Your task to perform on an android device: Go to battery settings Image 0: 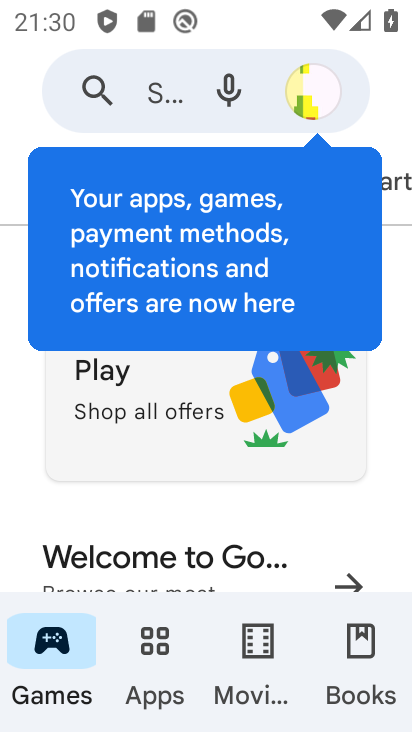
Step 0: press home button
Your task to perform on an android device: Go to battery settings Image 1: 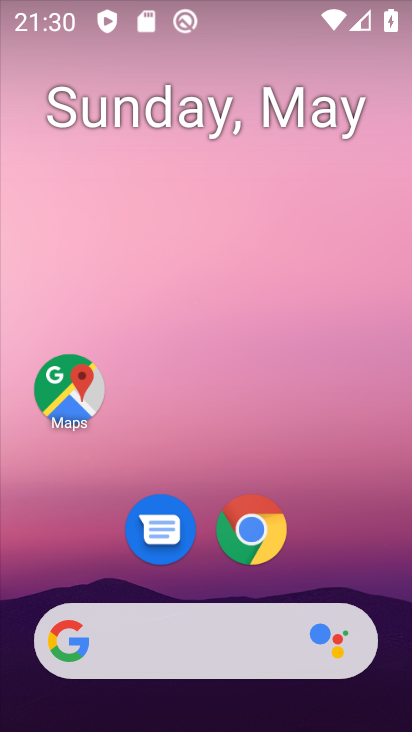
Step 1: drag from (319, 577) to (324, 40)
Your task to perform on an android device: Go to battery settings Image 2: 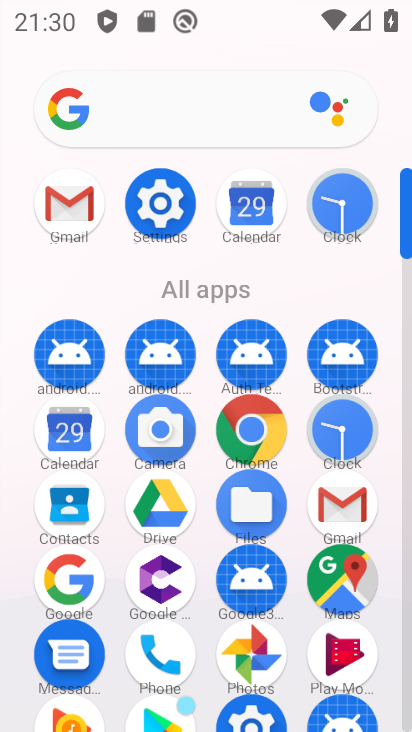
Step 2: click (165, 223)
Your task to perform on an android device: Go to battery settings Image 3: 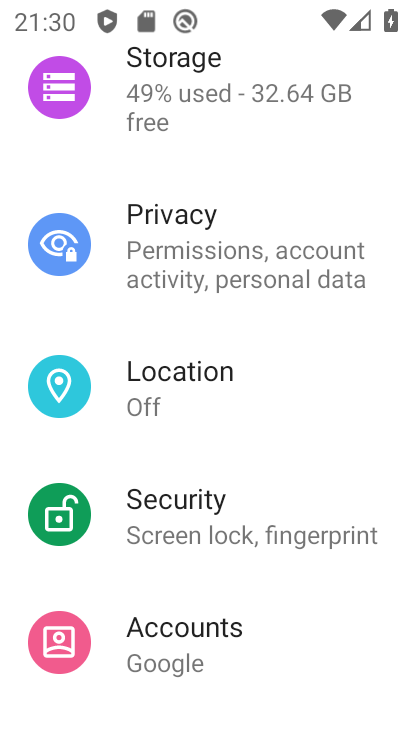
Step 3: drag from (194, 334) to (224, 582)
Your task to perform on an android device: Go to battery settings Image 4: 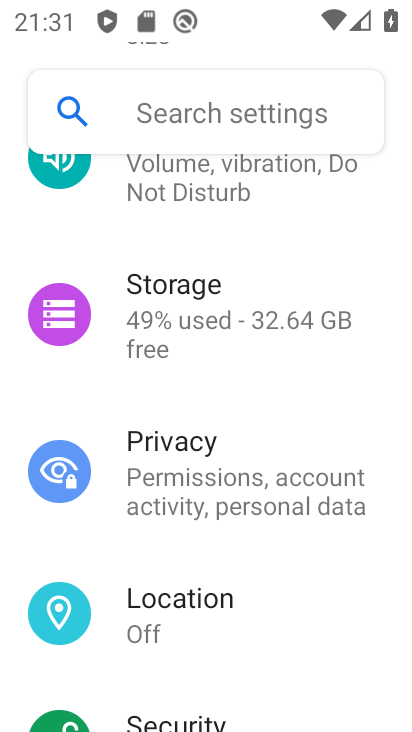
Step 4: drag from (181, 223) to (216, 535)
Your task to perform on an android device: Go to battery settings Image 5: 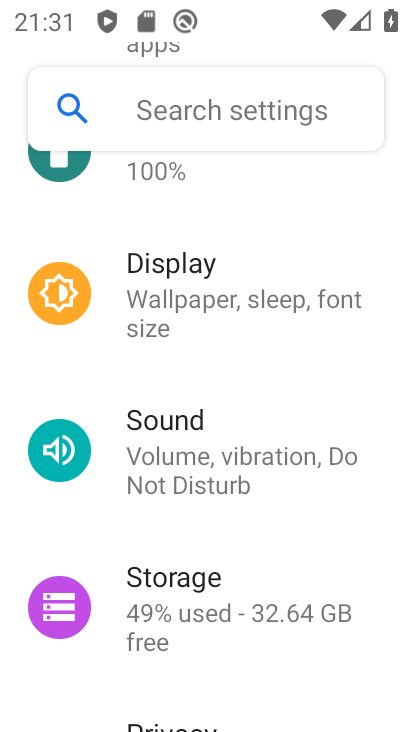
Step 5: drag from (182, 229) to (206, 486)
Your task to perform on an android device: Go to battery settings Image 6: 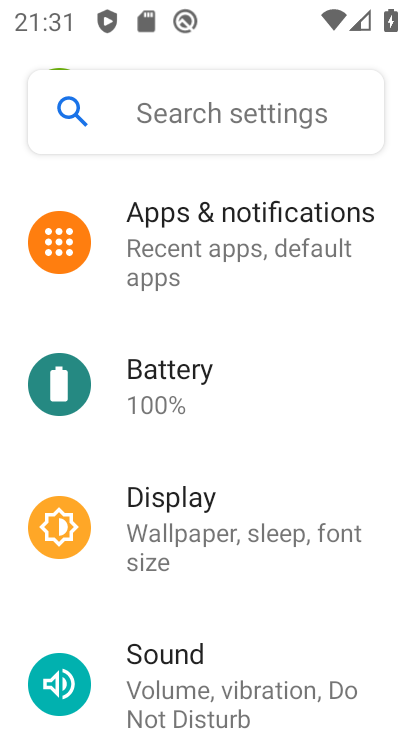
Step 6: click (187, 368)
Your task to perform on an android device: Go to battery settings Image 7: 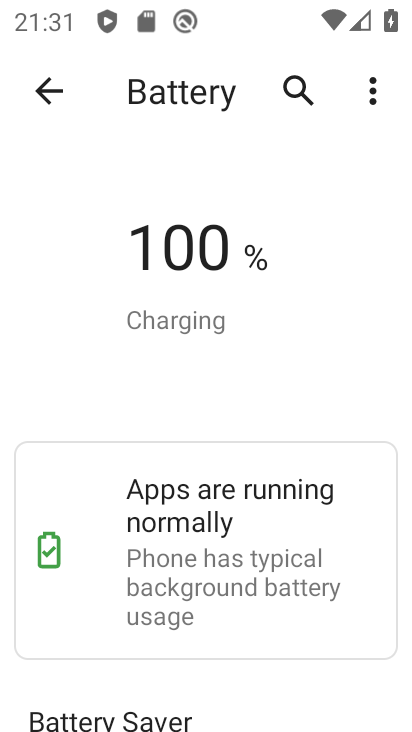
Step 7: task complete